Your task to perform on an android device: turn on the 24-hour format for clock Image 0: 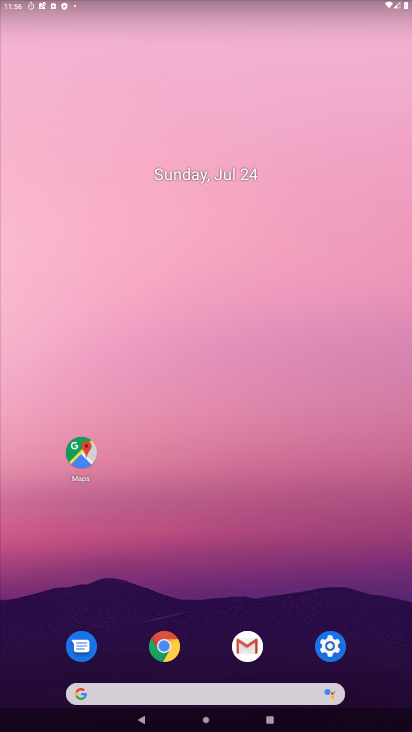
Step 0: drag from (305, 701) to (223, 275)
Your task to perform on an android device: turn on the 24-hour format for clock Image 1: 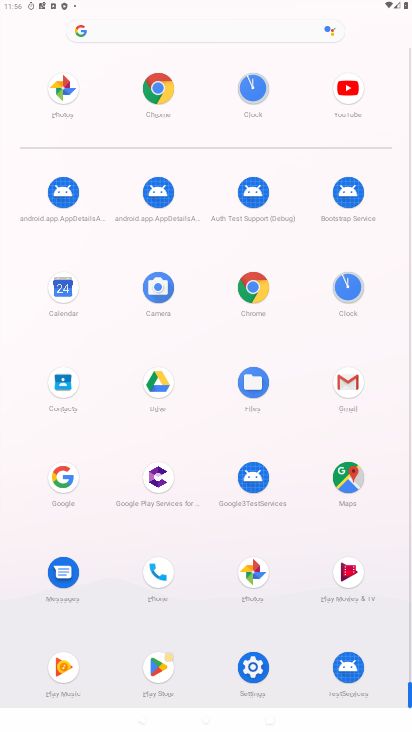
Step 1: click (340, 289)
Your task to perform on an android device: turn on the 24-hour format for clock Image 2: 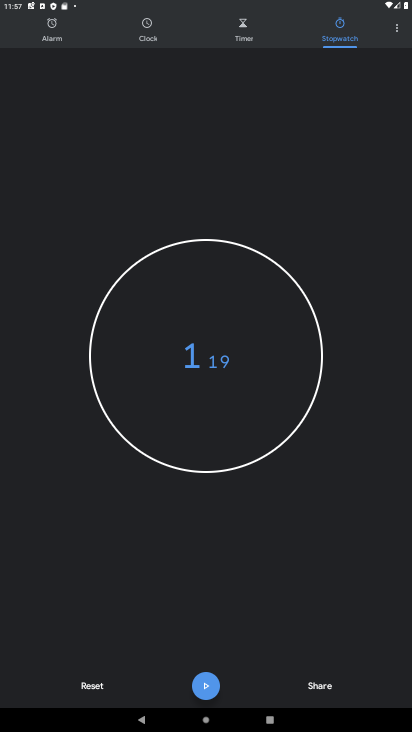
Step 2: click (404, 37)
Your task to perform on an android device: turn on the 24-hour format for clock Image 3: 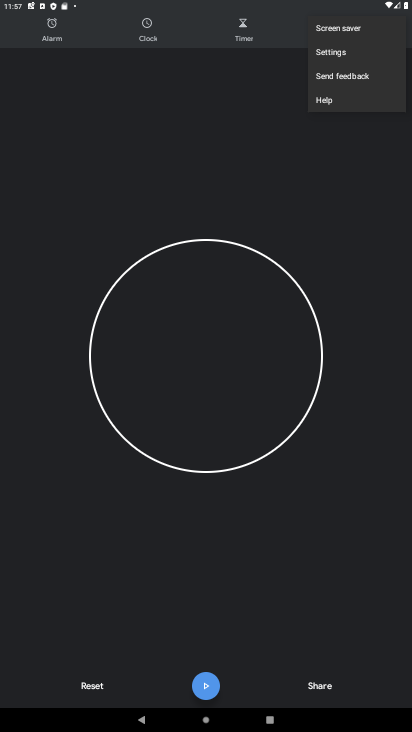
Step 3: click (333, 61)
Your task to perform on an android device: turn on the 24-hour format for clock Image 4: 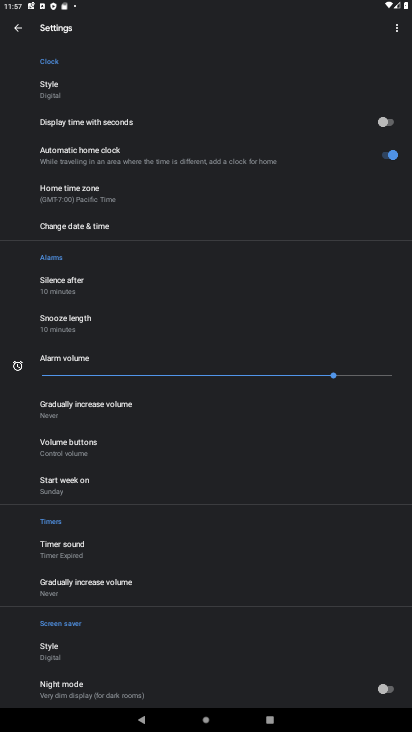
Step 4: click (94, 231)
Your task to perform on an android device: turn on the 24-hour format for clock Image 5: 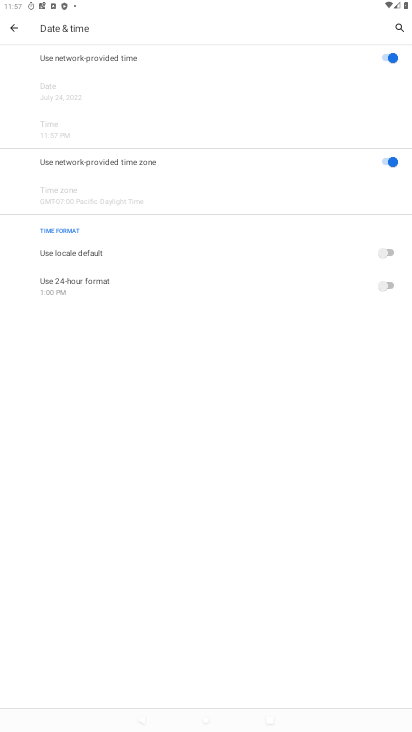
Step 5: click (222, 282)
Your task to perform on an android device: turn on the 24-hour format for clock Image 6: 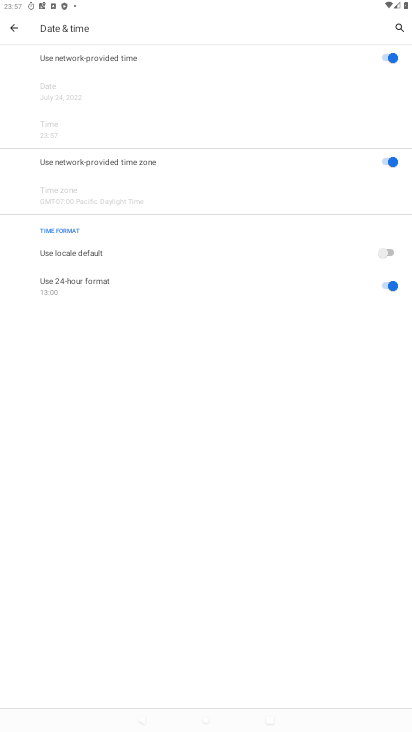
Step 6: task complete